Your task to perform on an android device: change the clock display to analog Image 0: 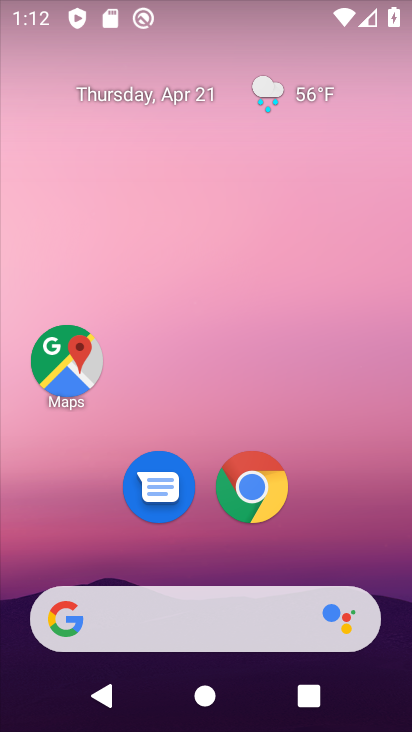
Step 0: drag from (367, 567) to (391, 37)
Your task to perform on an android device: change the clock display to analog Image 1: 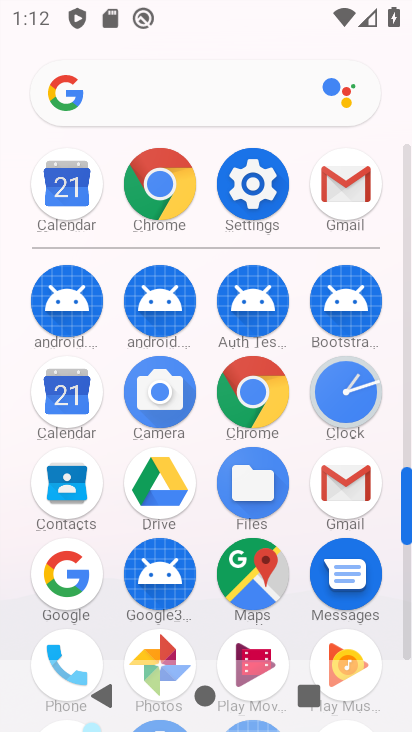
Step 1: click (345, 395)
Your task to perform on an android device: change the clock display to analog Image 2: 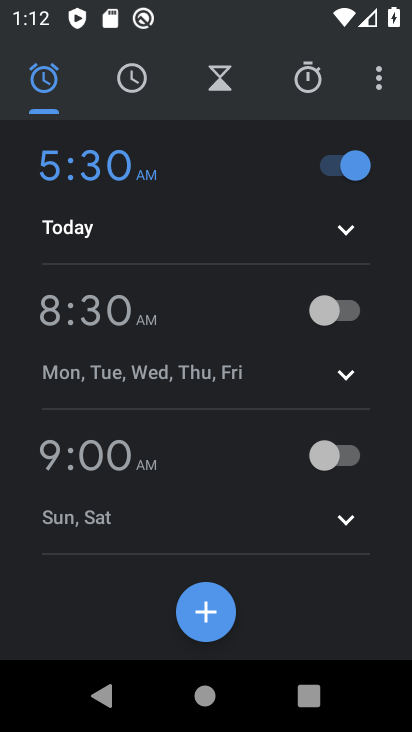
Step 2: click (377, 83)
Your task to perform on an android device: change the clock display to analog Image 3: 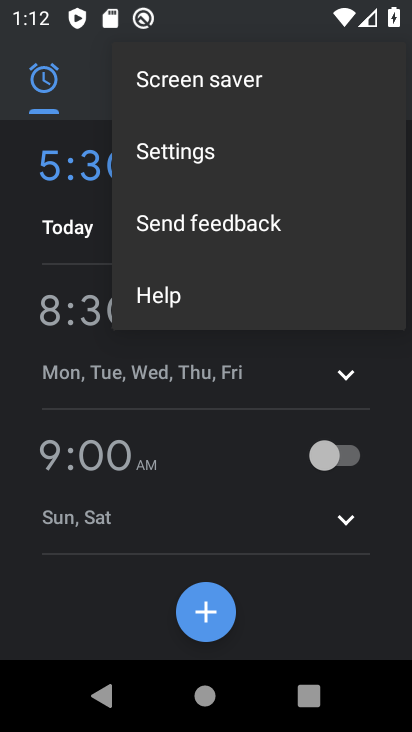
Step 3: click (185, 152)
Your task to perform on an android device: change the clock display to analog Image 4: 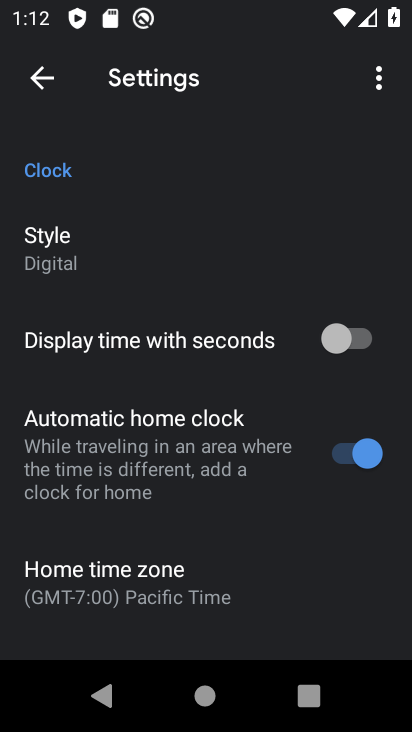
Step 4: click (57, 258)
Your task to perform on an android device: change the clock display to analog Image 5: 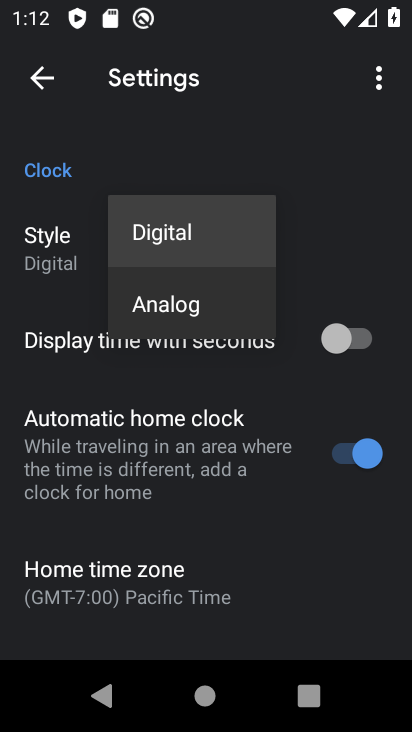
Step 5: click (161, 316)
Your task to perform on an android device: change the clock display to analog Image 6: 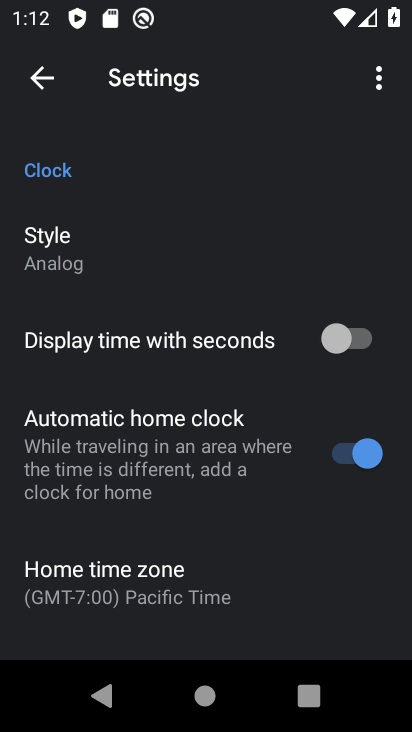
Step 6: task complete